Your task to perform on an android device: Open Google Image 0: 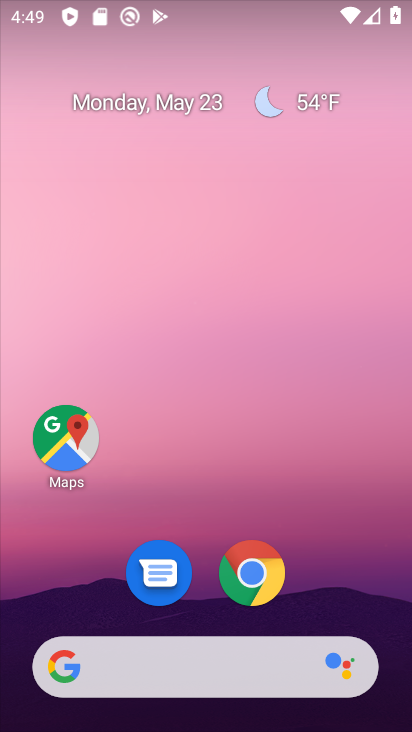
Step 0: drag from (223, 726) to (235, 35)
Your task to perform on an android device: Open Google Image 1: 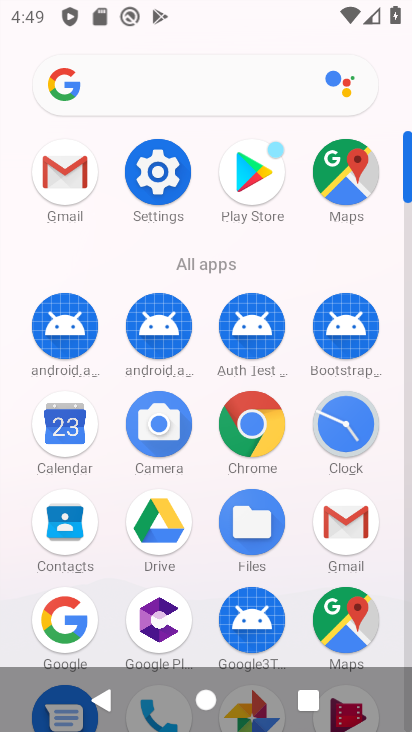
Step 1: click (62, 605)
Your task to perform on an android device: Open Google Image 2: 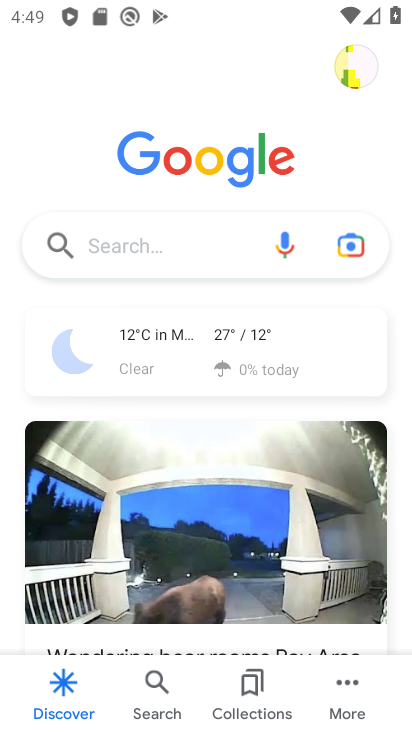
Step 2: task complete